Your task to perform on an android device: Open Google Maps and go to "Timeline" Image 0: 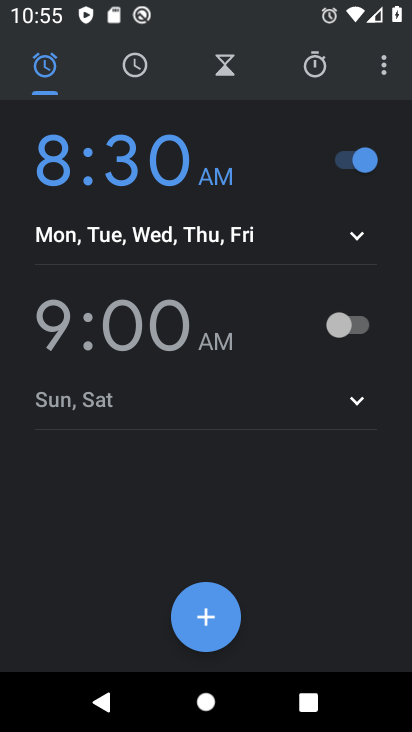
Step 0: press home button
Your task to perform on an android device: Open Google Maps and go to "Timeline" Image 1: 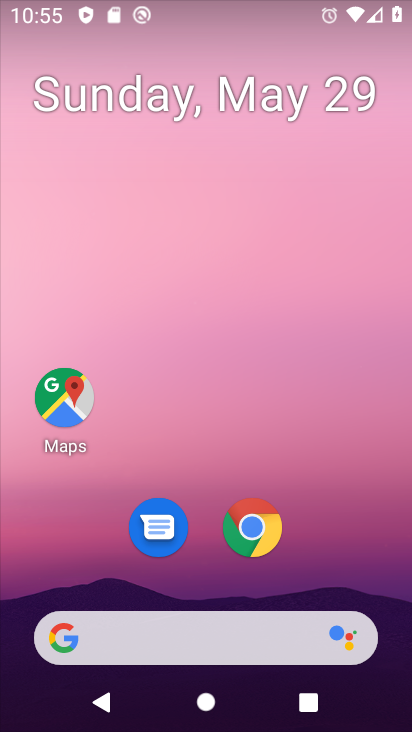
Step 1: click (53, 411)
Your task to perform on an android device: Open Google Maps and go to "Timeline" Image 2: 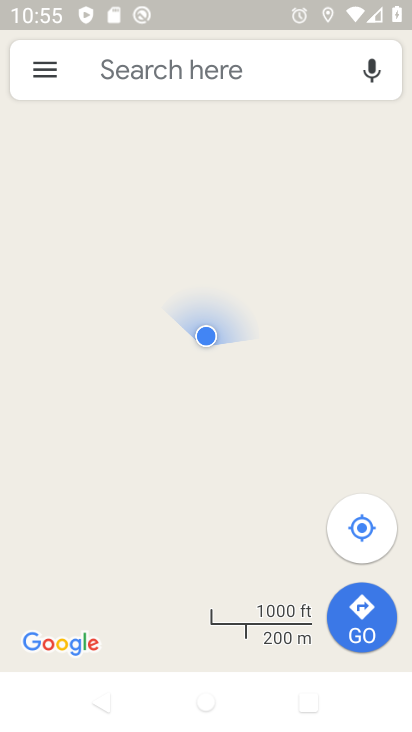
Step 2: click (46, 76)
Your task to perform on an android device: Open Google Maps and go to "Timeline" Image 3: 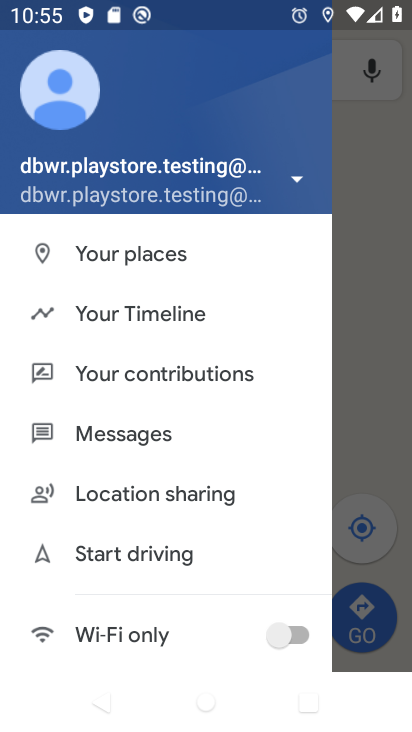
Step 3: click (210, 316)
Your task to perform on an android device: Open Google Maps and go to "Timeline" Image 4: 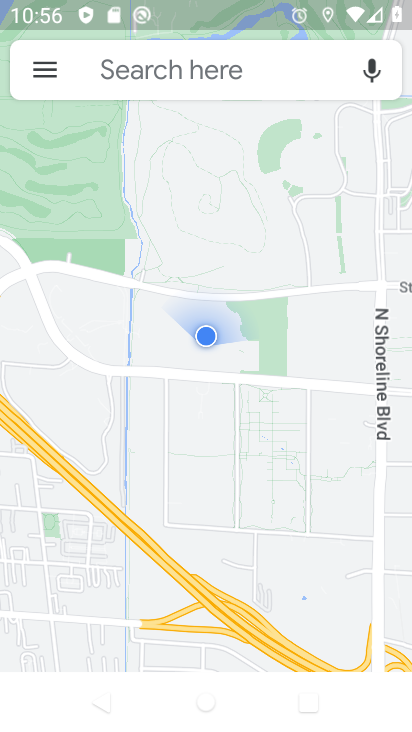
Step 4: click (210, 316)
Your task to perform on an android device: Open Google Maps and go to "Timeline" Image 5: 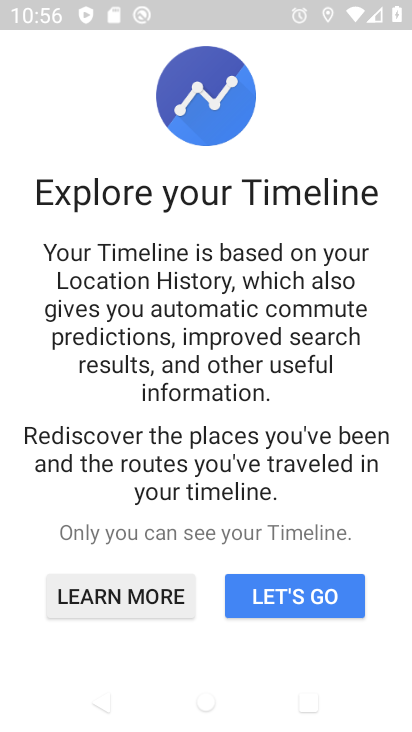
Step 5: click (267, 599)
Your task to perform on an android device: Open Google Maps and go to "Timeline" Image 6: 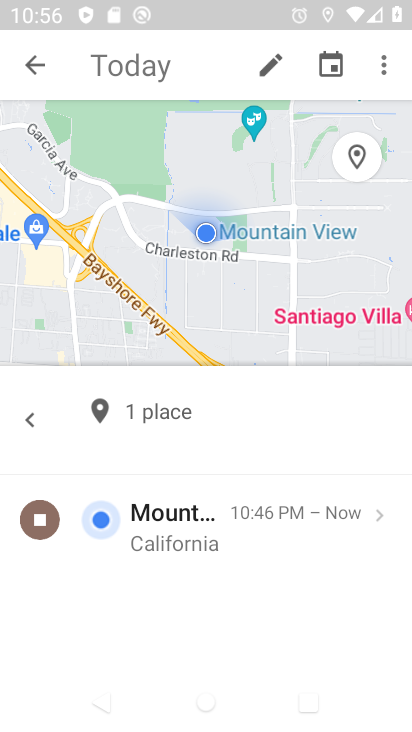
Step 6: task complete